Your task to perform on an android device: uninstall "Roku - Official Remote Control" Image 0: 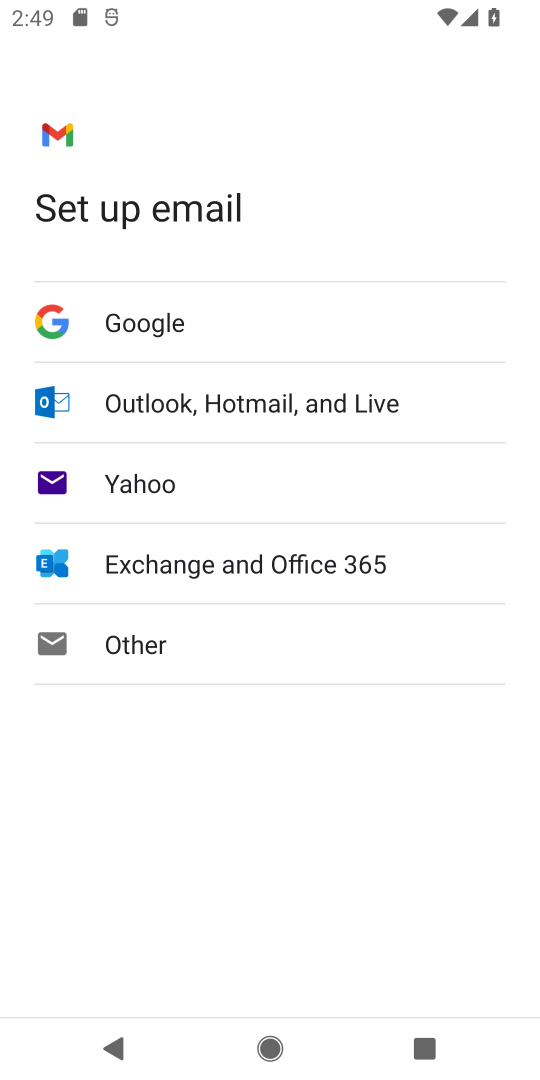
Step 0: press home button
Your task to perform on an android device: uninstall "Roku - Official Remote Control" Image 1: 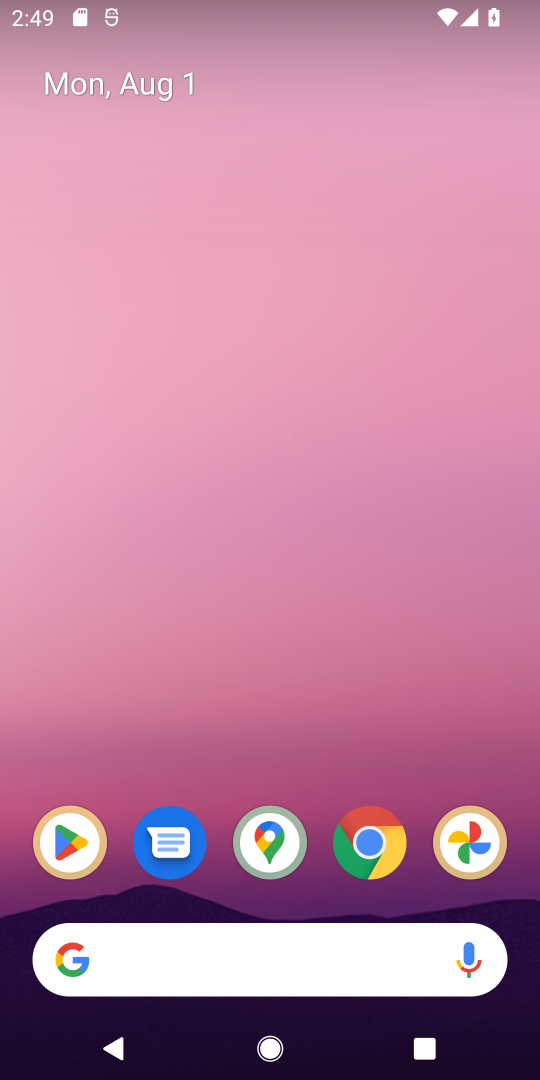
Step 1: click (60, 840)
Your task to perform on an android device: uninstall "Roku - Official Remote Control" Image 2: 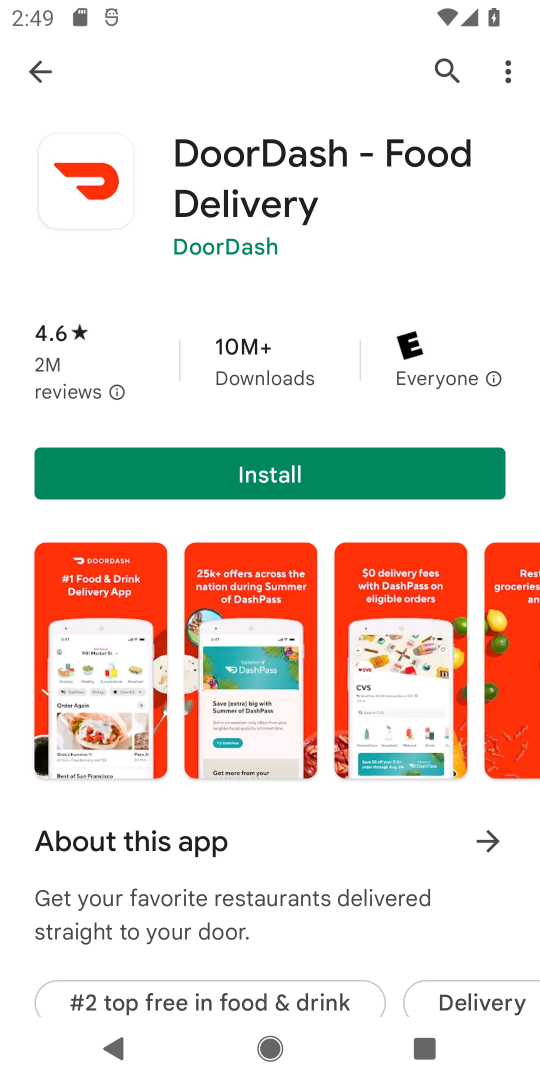
Step 2: click (38, 56)
Your task to perform on an android device: uninstall "Roku - Official Remote Control" Image 3: 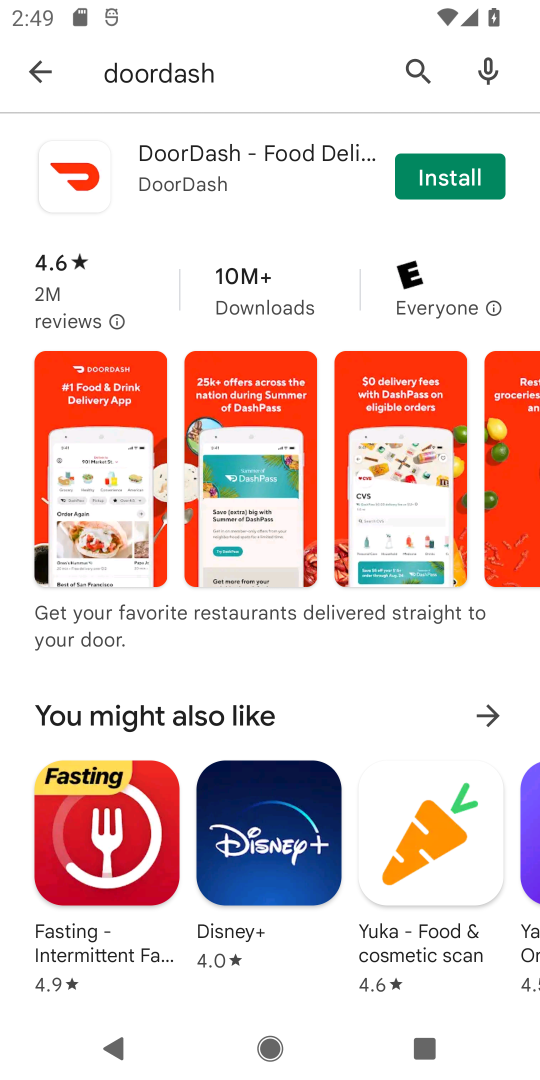
Step 3: click (165, 86)
Your task to perform on an android device: uninstall "Roku - Official Remote Control" Image 4: 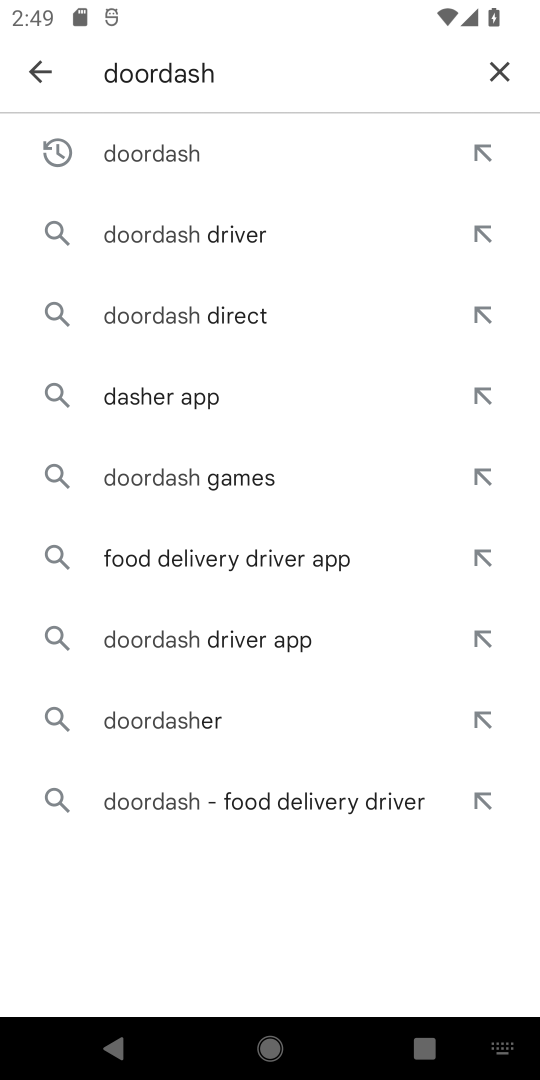
Step 4: click (510, 70)
Your task to perform on an android device: uninstall "Roku - Official Remote Control" Image 5: 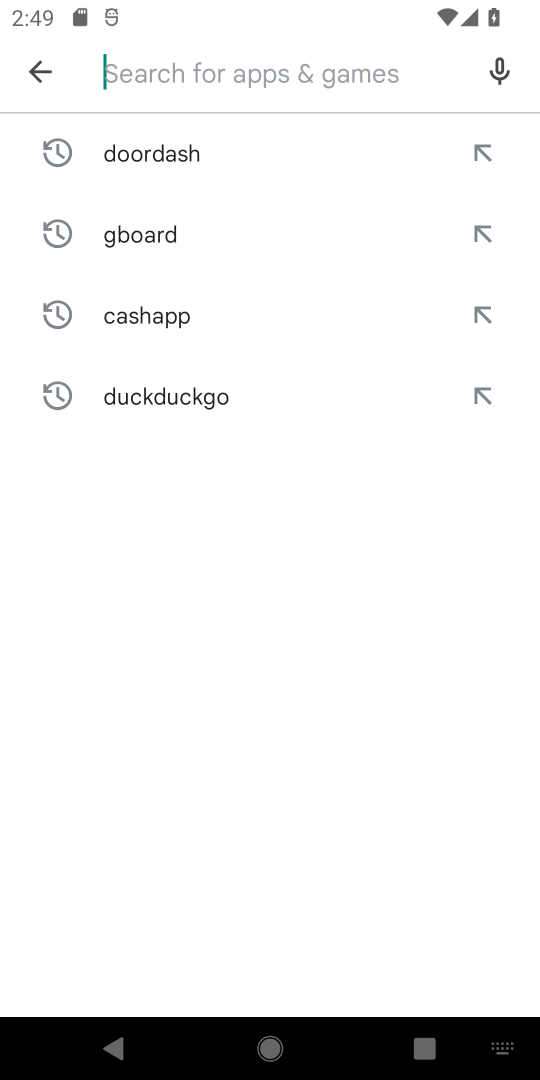
Step 5: type "Roku"
Your task to perform on an android device: uninstall "Roku - Official Remote Control" Image 6: 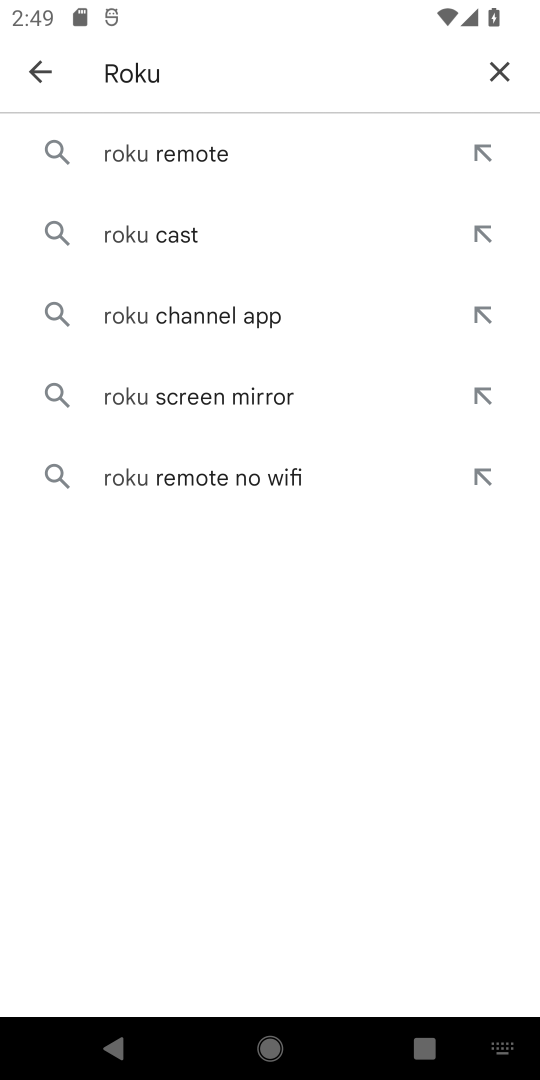
Step 6: click (156, 191)
Your task to perform on an android device: uninstall "Roku - Official Remote Control" Image 7: 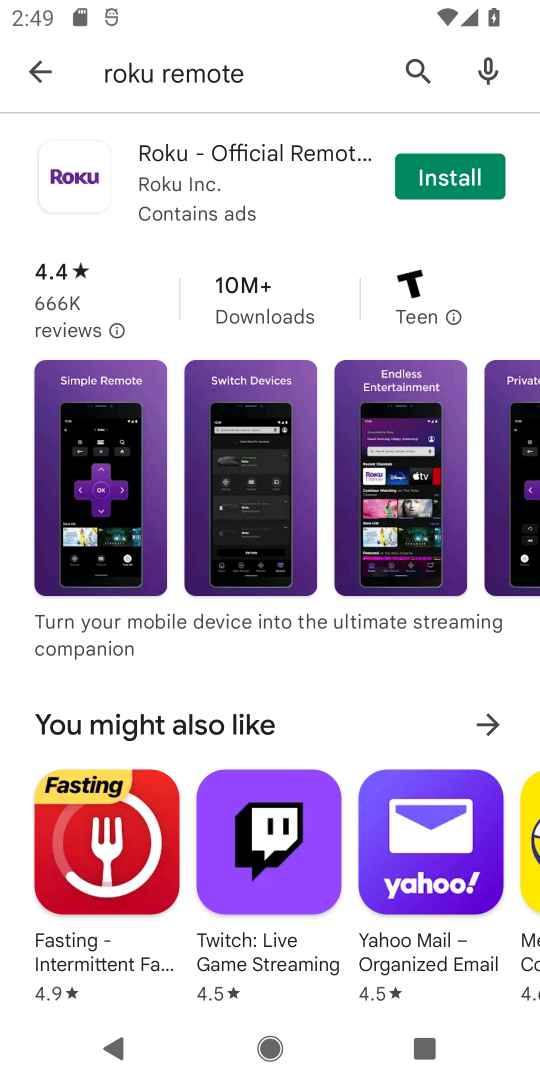
Step 7: click (62, 175)
Your task to perform on an android device: uninstall "Roku - Official Remote Control" Image 8: 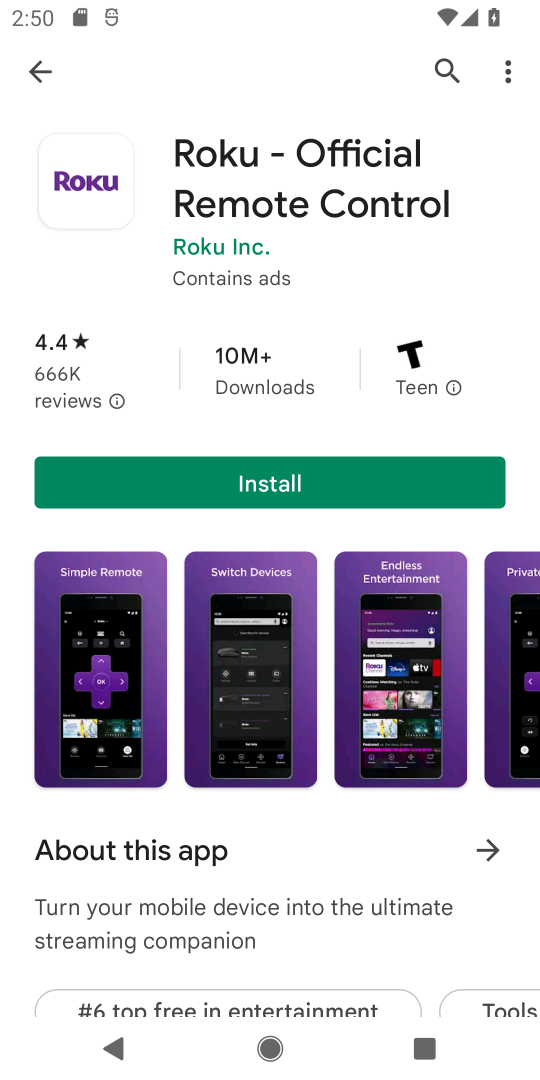
Step 8: task complete